Your task to perform on an android device: Open sound settings Image 0: 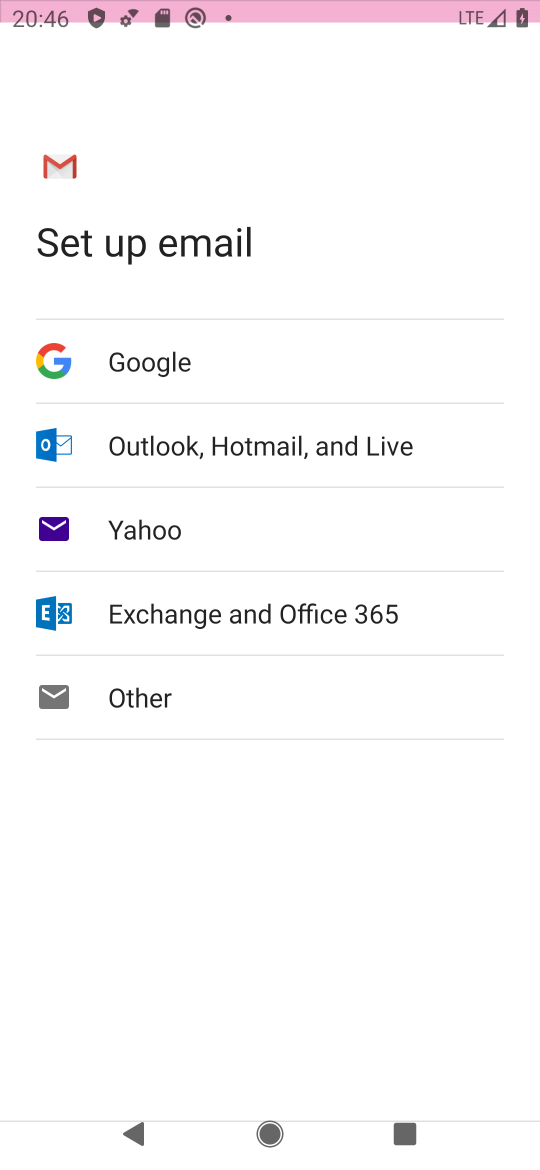
Step 0: press home button
Your task to perform on an android device: Open sound settings Image 1: 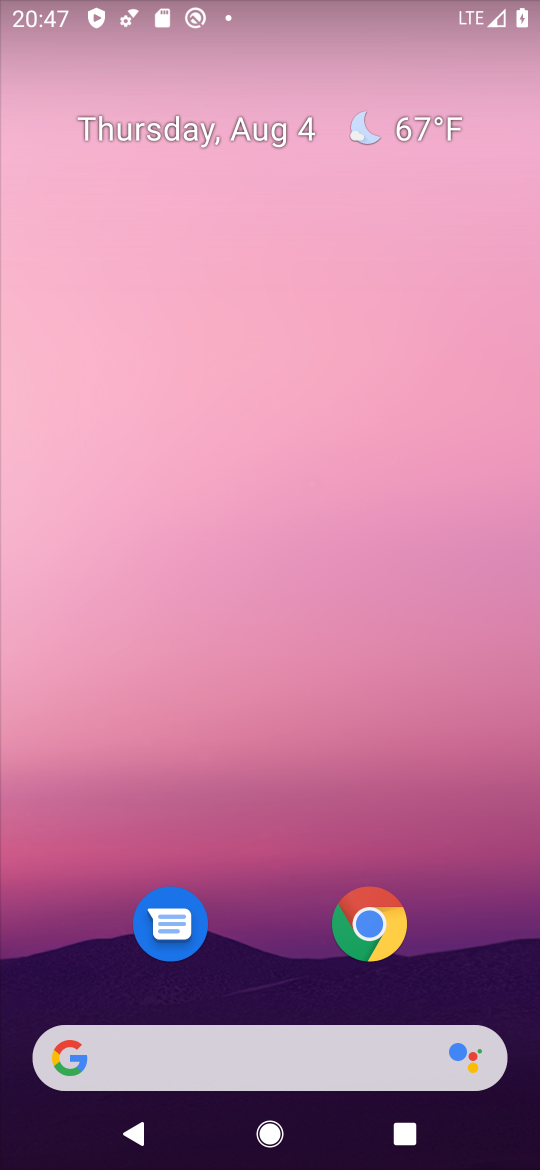
Step 1: drag from (273, 984) to (210, 110)
Your task to perform on an android device: Open sound settings Image 2: 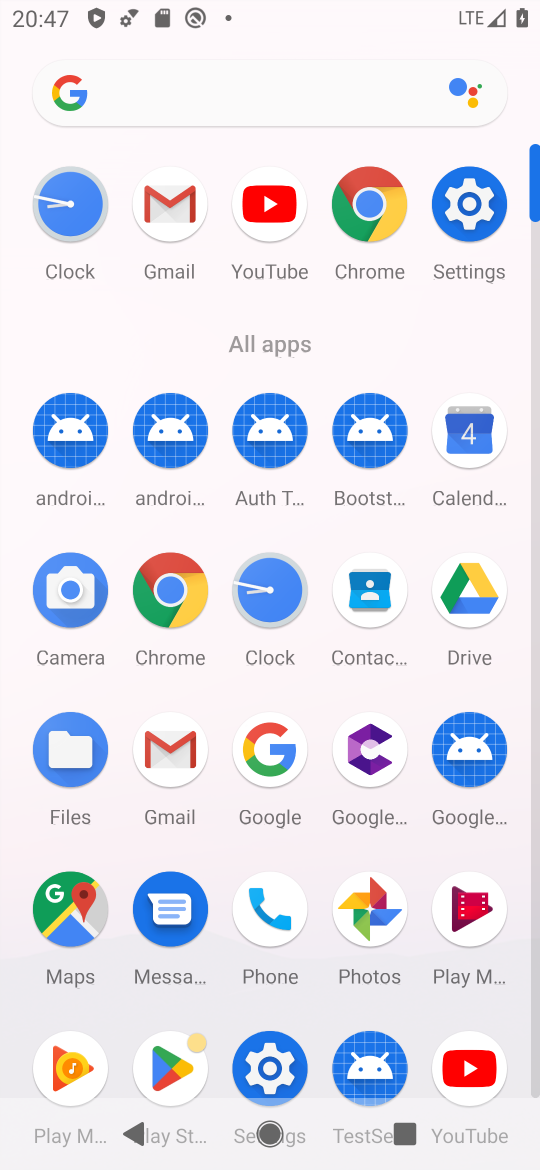
Step 2: click (441, 178)
Your task to perform on an android device: Open sound settings Image 3: 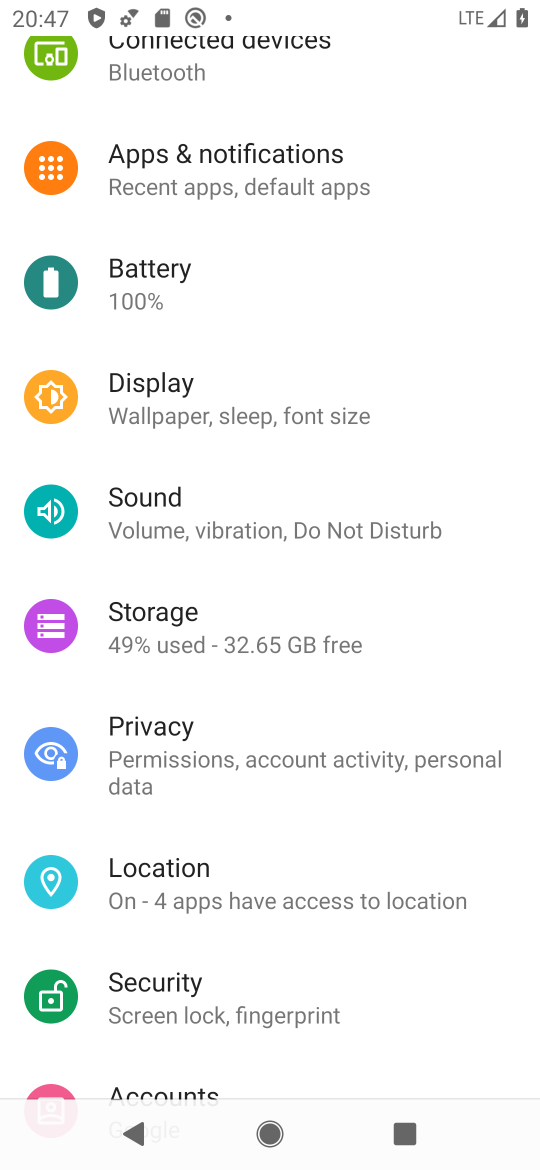
Step 3: click (119, 533)
Your task to perform on an android device: Open sound settings Image 4: 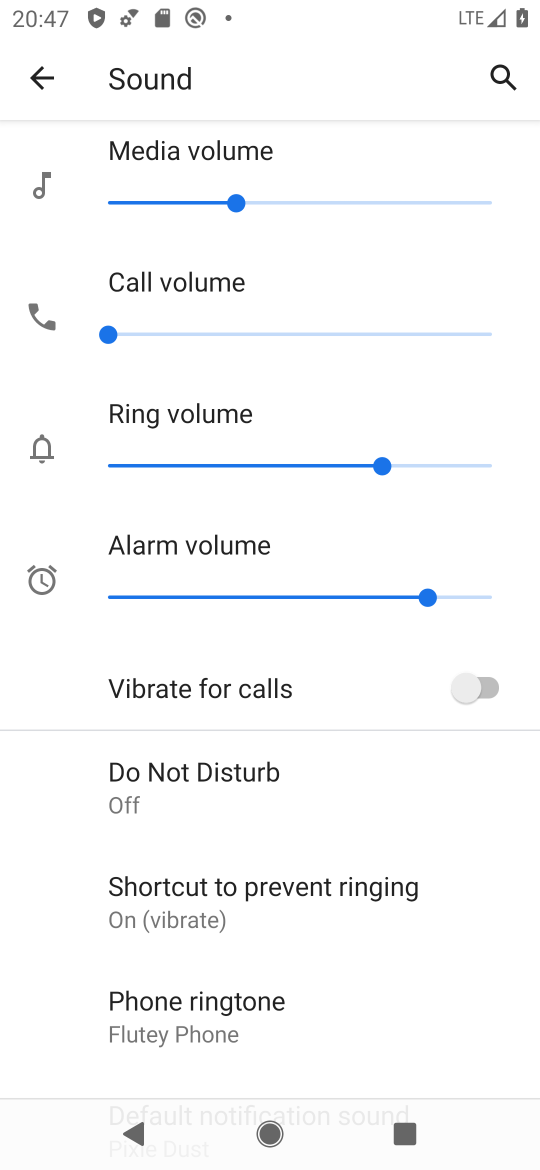
Step 4: task complete